Your task to perform on an android device: Open Google Chrome and click the shortcut for Amazon.com Image 0: 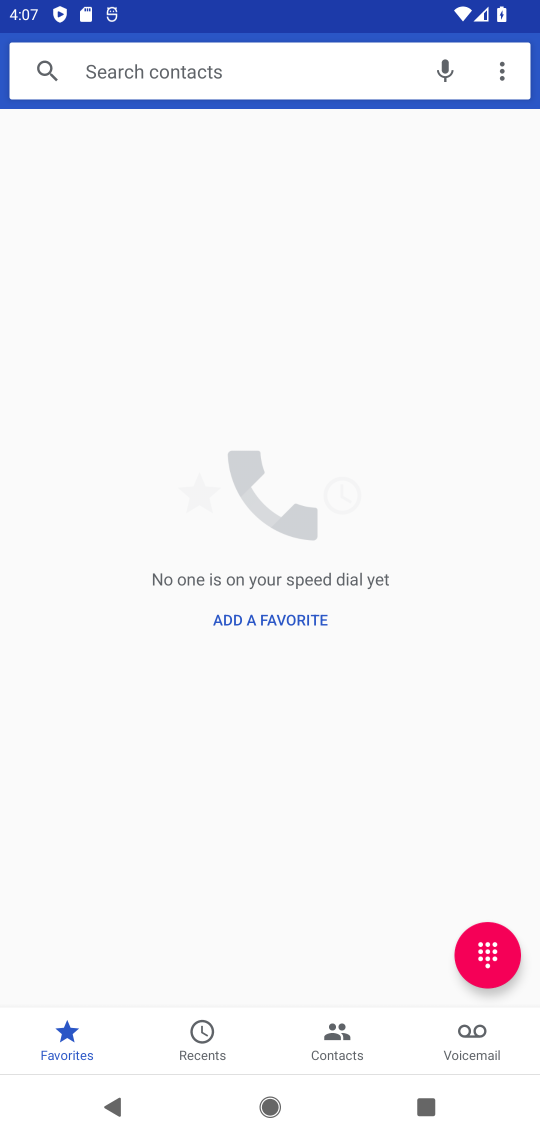
Step 0: press home button
Your task to perform on an android device: Open Google Chrome and click the shortcut for Amazon.com Image 1: 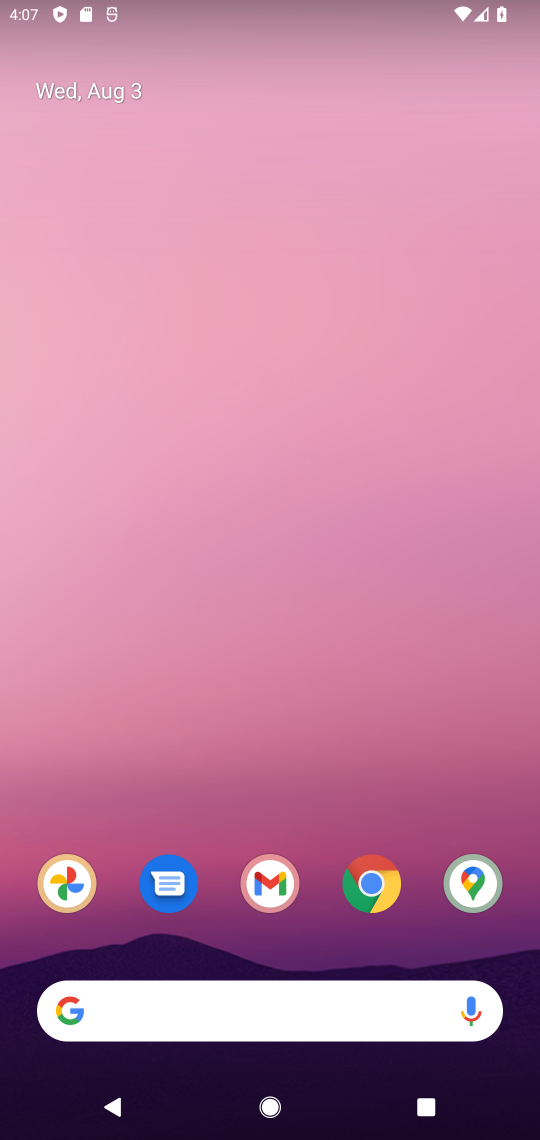
Step 1: click (398, 890)
Your task to perform on an android device: Open Google Chrome and click the shortcut for Amazon.com Image 2: 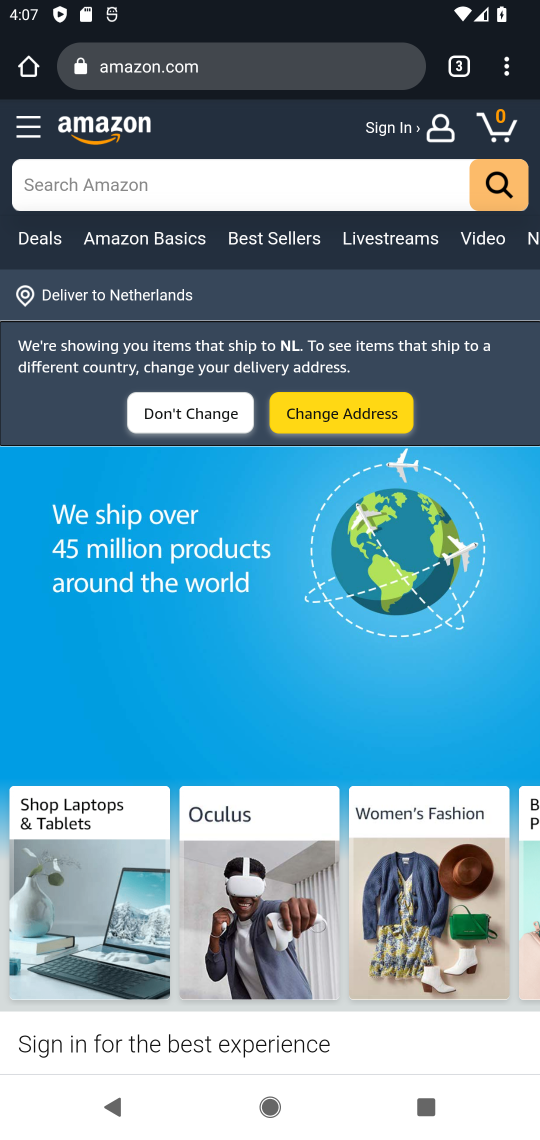
Step 2: click (472, 55)
Your task to perform on an android device: Open Google Chrome and click the shortcut for Amazon.com Image 3: 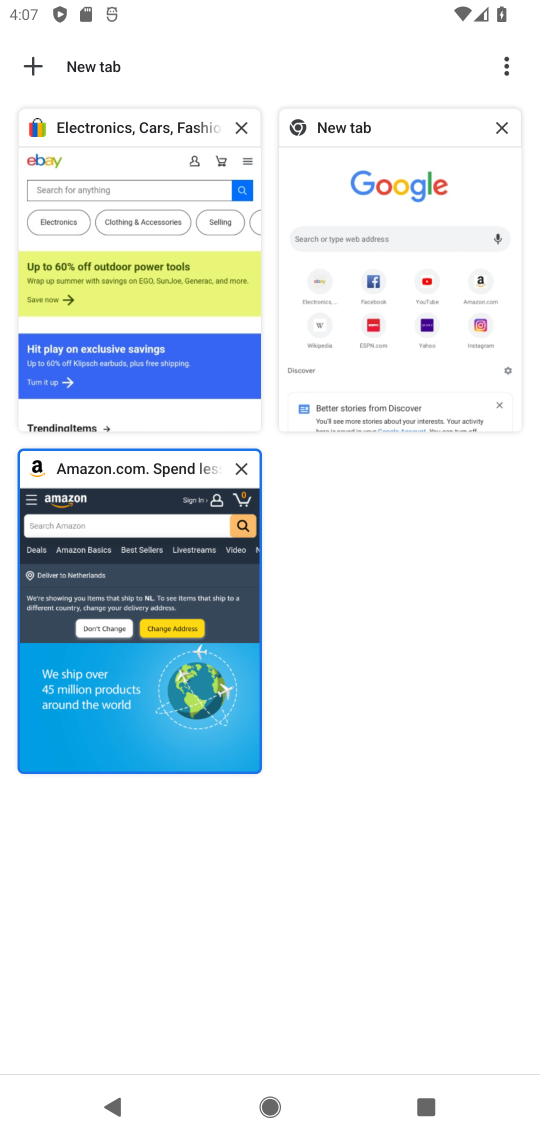
Step 3: click (399, 242)
Your task to perform on an android device: Open Google Chrome and click the shortcut for Amazon.com Image 4: 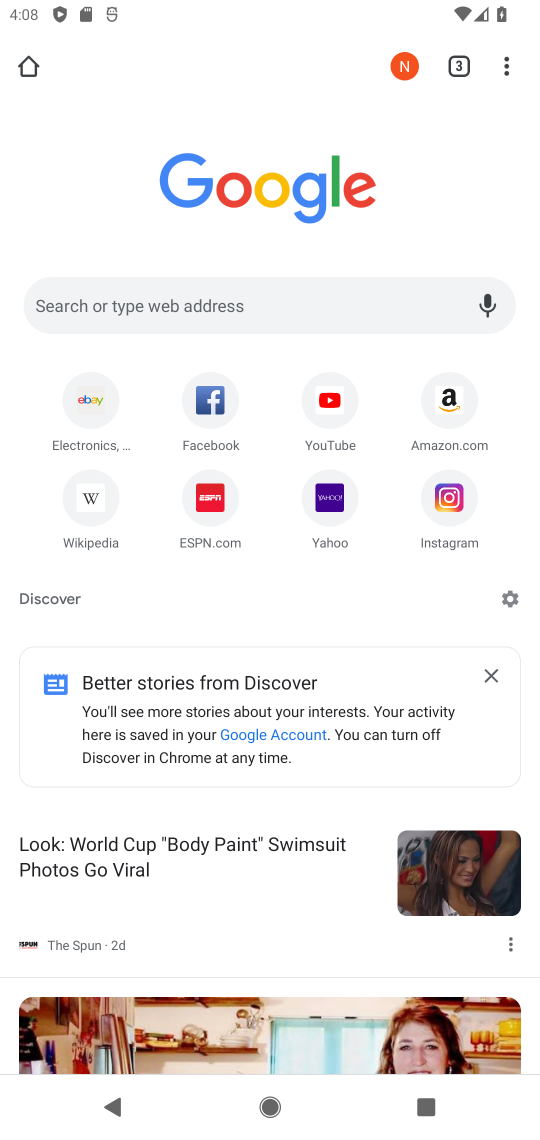
Step 4: click (468, 420)
Your task to perform on an android device: Open Google Chrome and click the shortcut for Amazon.com Image 5: 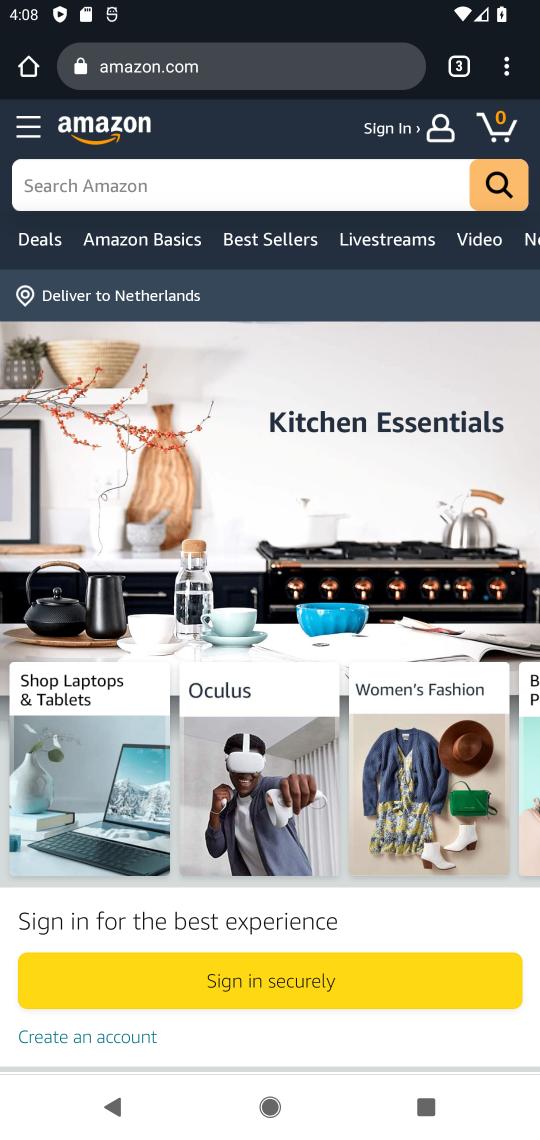
Step 5: task complete